Your task to perform on an android device: See recent photos Image 0: 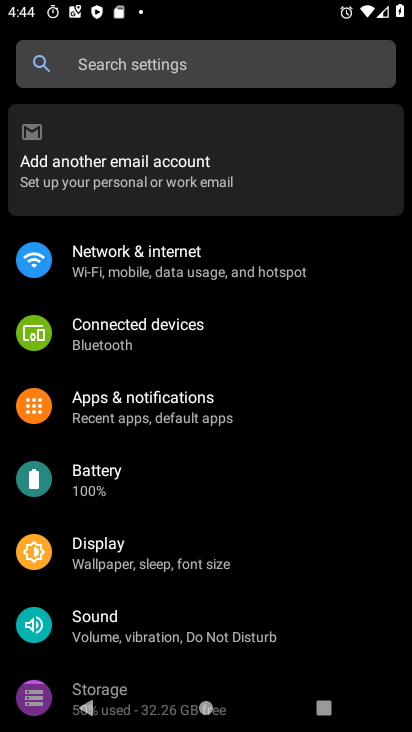
Step 0: press home button
Your task to perform on an android device: See recent photos Image 1: 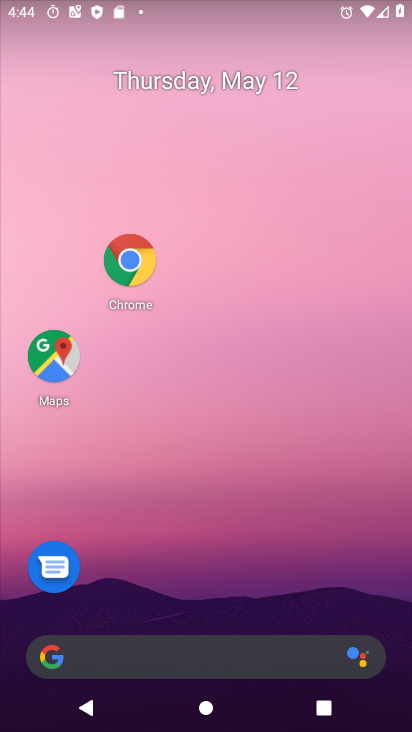
Step 1: drag from (169, 637) to (213, 289)
Your task to perform on an android device: See recent photos Image 2: 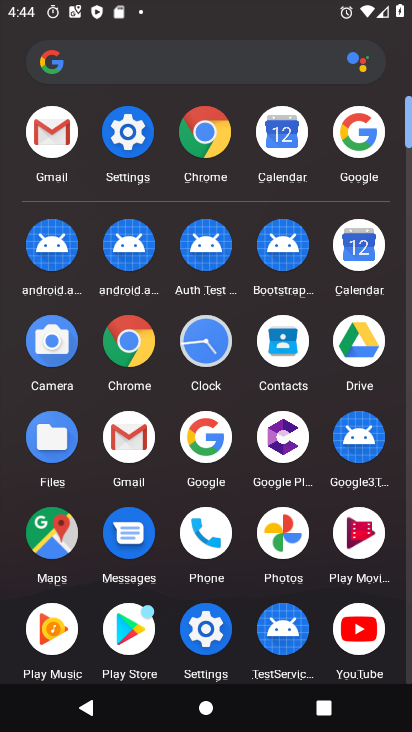
Step 2: click (198, 141)
Your task to perform on an android device: See recent photos Image 3: 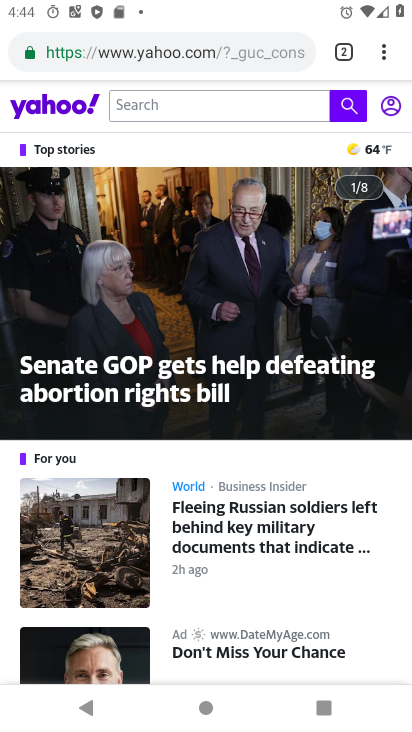
Step 3: press home button
Your task to perform on an android device: See recent photos Image 4: 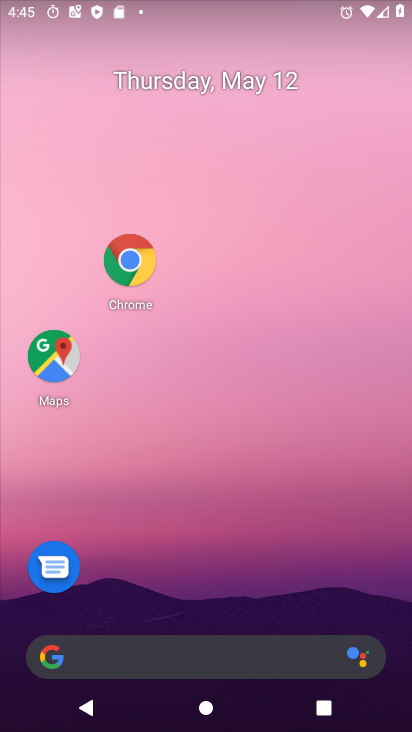
Step 4: drag from (259, 637) to (257, 295)
Your task to perform on an android device: See recent photos Image 5: 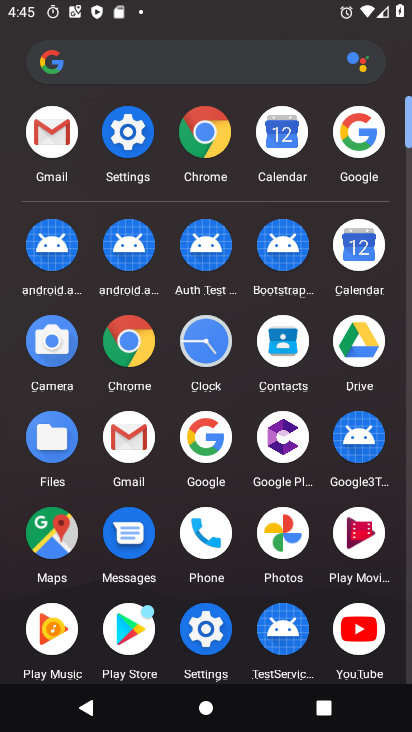
Step 5: click (272, 532)
Your task to perform on an android device: See recent photos Image 6: 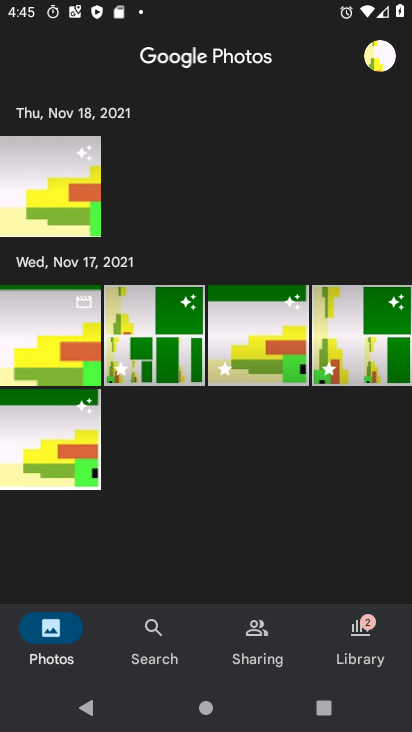
Step 6: click (74, 212)
Your task to perform on an android device: See recent photos Image 7: 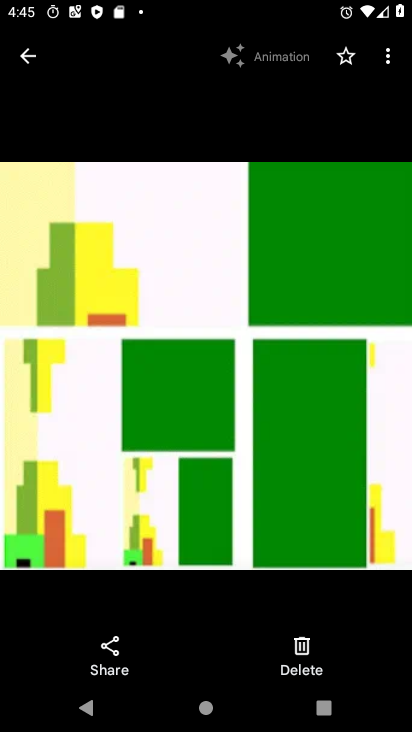
Step 7: task complete